Your task to perform on an android device: Find coffee shops on Maps Image 0: 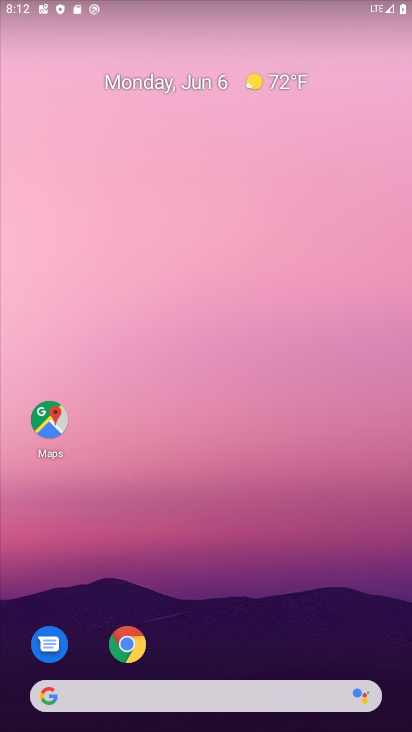
Step 0: drag from (271, 704) to (102, 205)
Your task to perform on an android device: Find coffee shops on Maps Image 1: 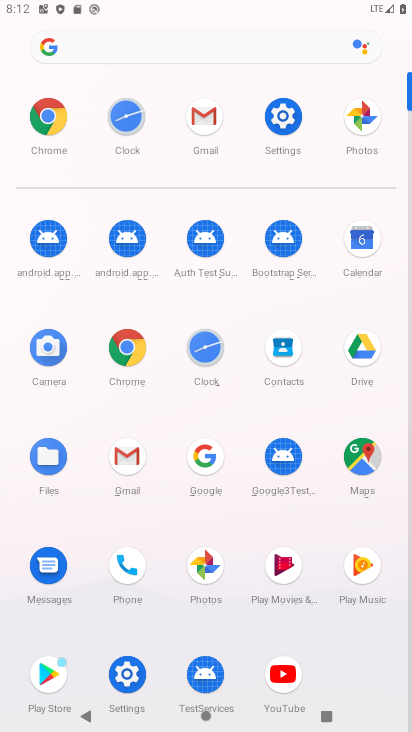
Step 1: click (363, 459)
Your task to perform on an android device: Find coffee shops on Maps Image 2: 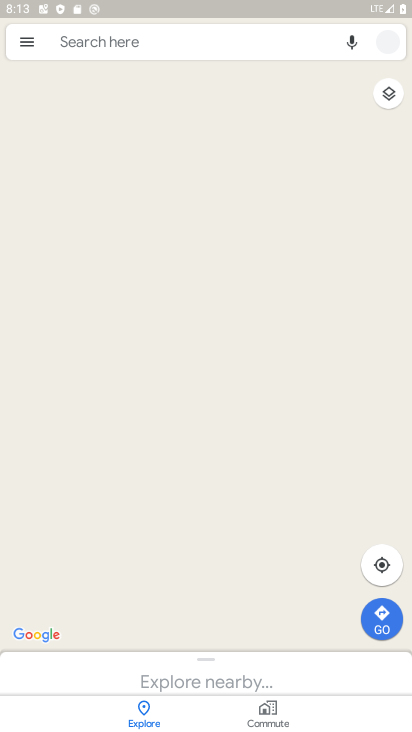
Step 2: click (135, 43)
Your task to perform on an android device: Find coffee shops on Maps Image 3: 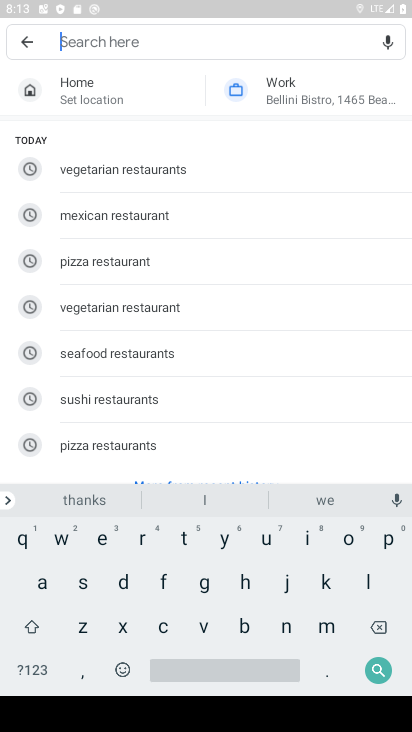
Step 3: click (163, 617)
Your task to perform on an android device: Find coffee shops on Maps Image 4: 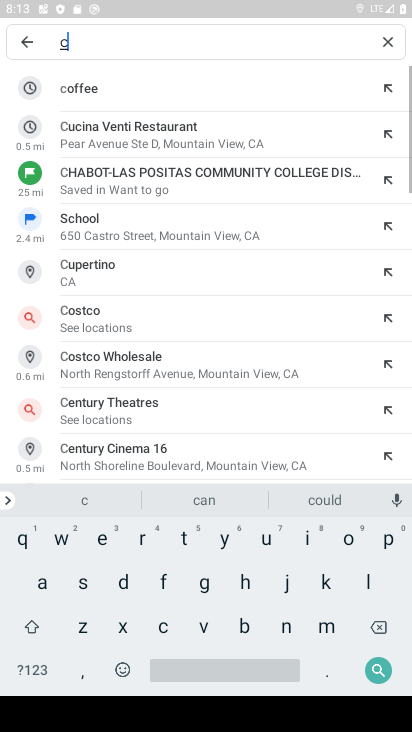
Step 4: click (100, 88)
Your task to perform on an android device: Find coffee shops on Maps Image 5: 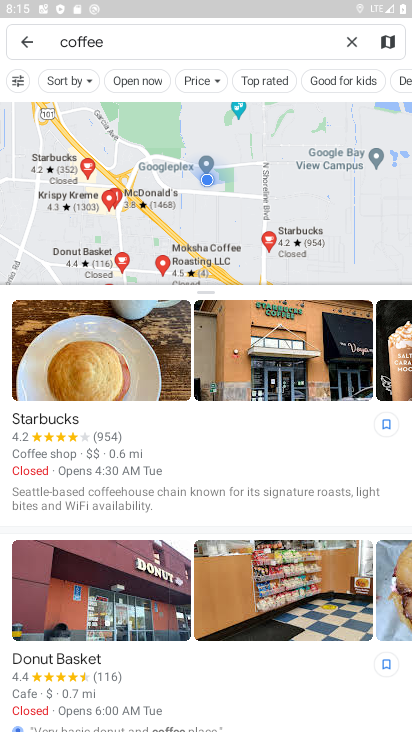
Step 5: task complete